Your task to perform on an android device: turn on priority inbox in the gmail app Image 0: 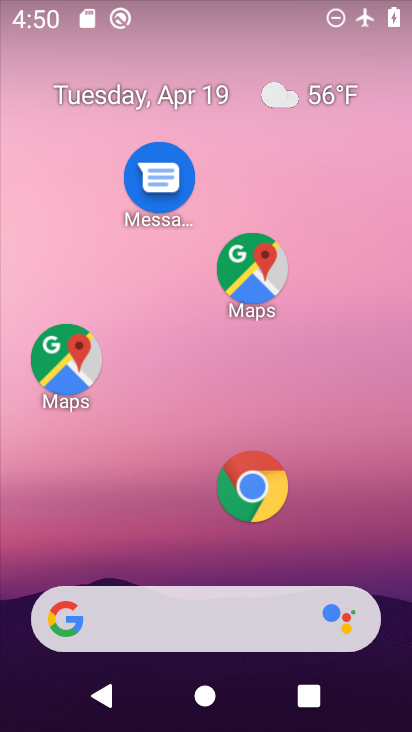
Step 0: click (305, 114)
Your task to perform on an android device: turn on priority inbox in the gmail app Image 1: 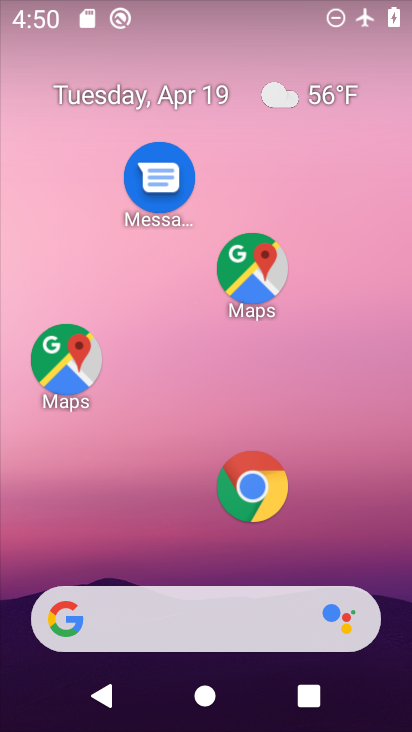
Step 1: drag from (187, 522) to (261, 40)
Your task to perform on an android device: turn on priority inbox in the gmail app Image 2: 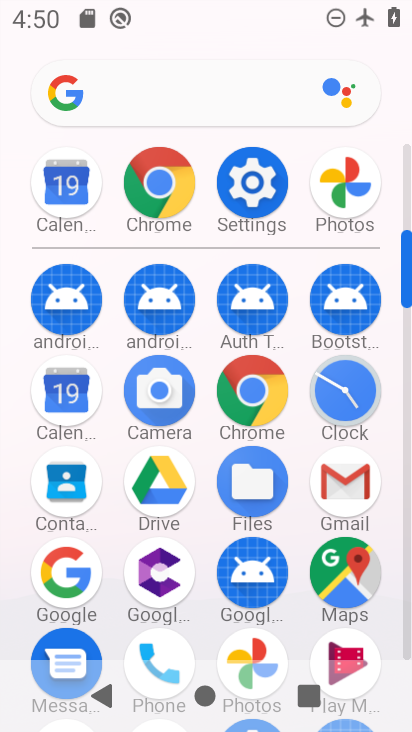
Step 2: drag from (312, 502) to (322, 230)
Your task to perform on an android device: turn on priority inbox in the gmail app Image 3: 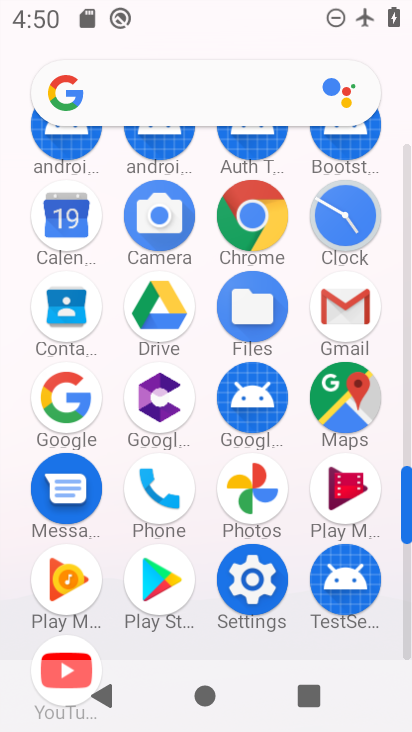
Step 3: click (340, 315)
Your task to perform on an android device: turn on priority inbox in the gmail app Image 4: 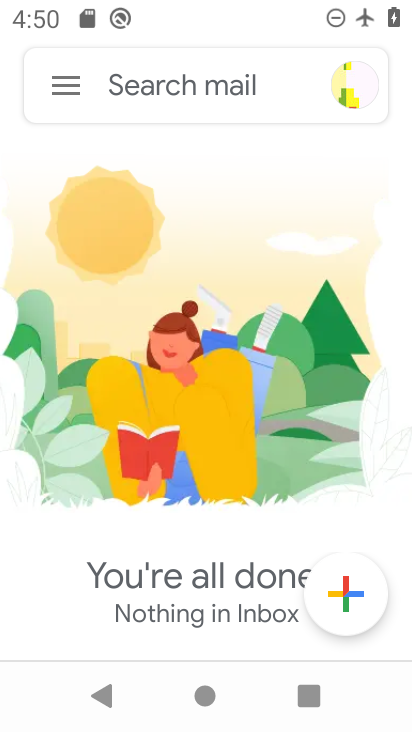
Step 4: click (64, 87)
Your task to perform on an android device: turn on priority inbox in the gmail app Image 5: 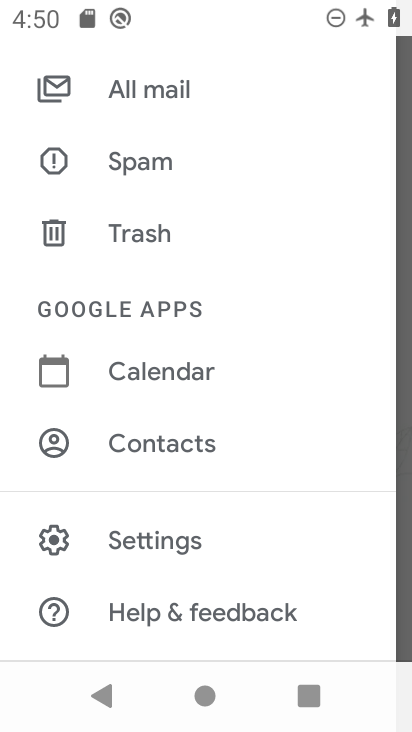
Step 5: click (194, 552)
Your task to perform on an android device: turn on priority inbox in the gmail app Image 6: 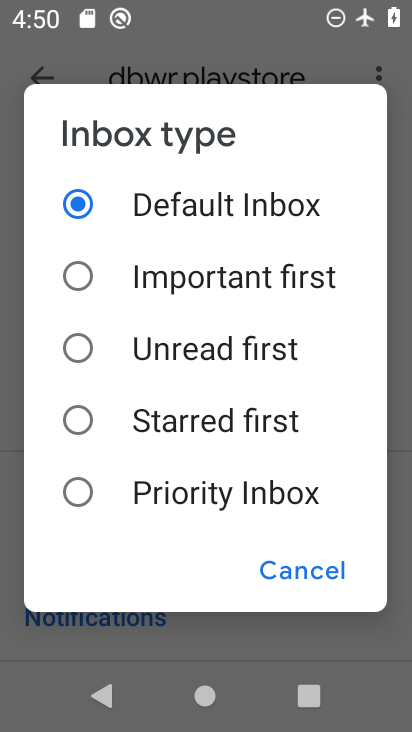
Step 6: click (213, 506)
Your task to perform on an android device: turn on priority inbox in the gmail app Image 7: 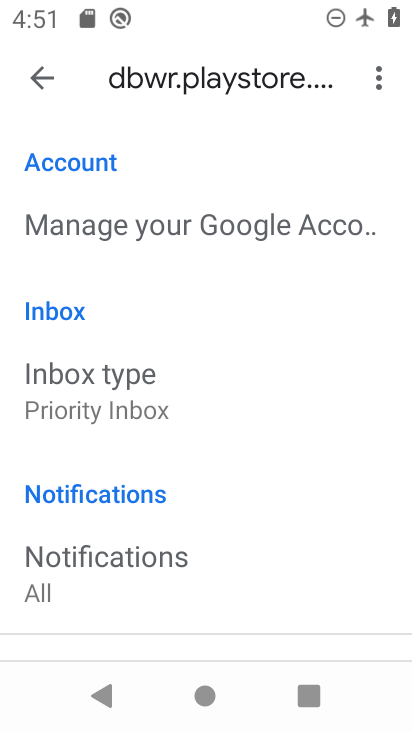
Step 7: task complete